Your task to perform on an android device: Go to privacy settings Image 0: 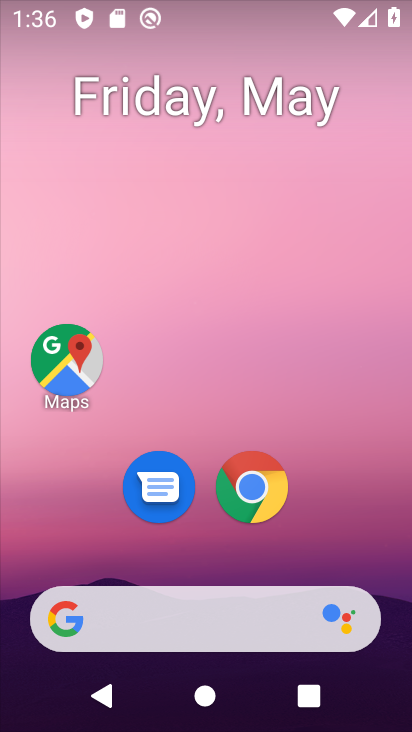
Step 0: drag from (311, 540) to (323, 6)
Your task to perform on an android device: Go to privacy settings Image 1: 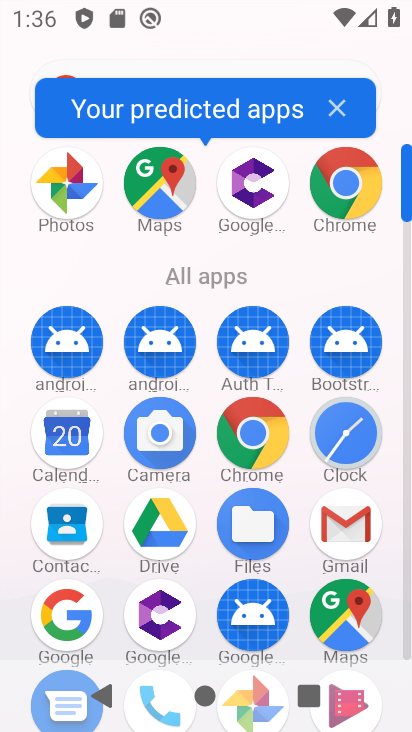
Step 1: click (406, 540)
Your task to perform on an android device: Go to privacy settings Image 2: 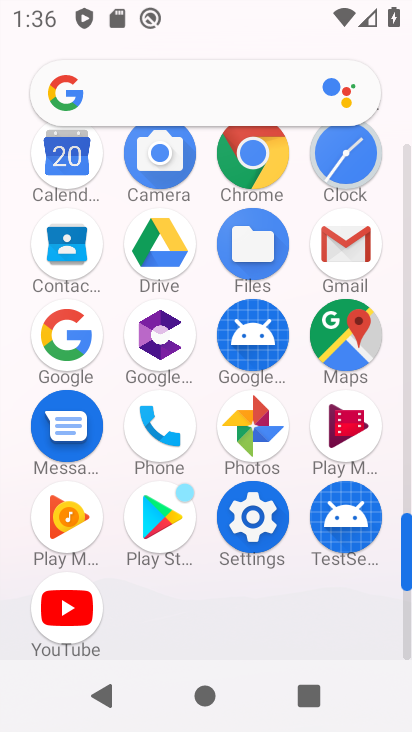
Step 2: click (239, 531)
Your task to perform on an android device: Go to privacy settings Image 3: 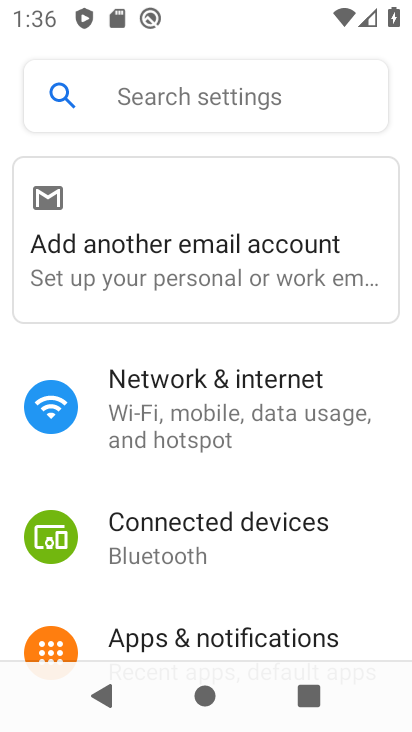
Step 3: drag from (255, 559) to (240, 79)
Your task to perform on an android device: Go to privacy settings Image 4: 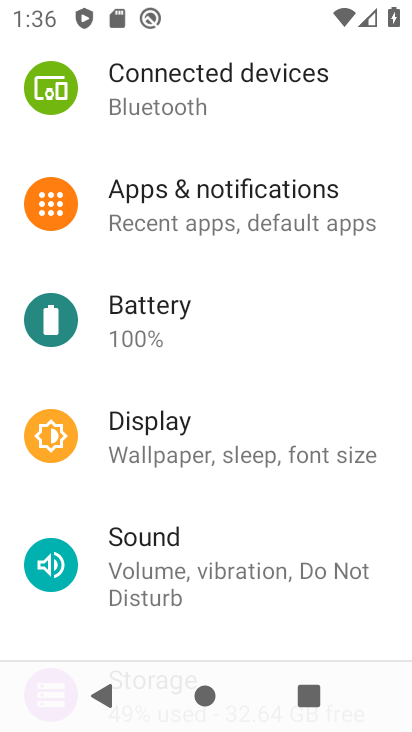
Step 4: drag from (233, 509) to (231, 263)
Your task to perform on an android device: Go to privacy settings Image 5: 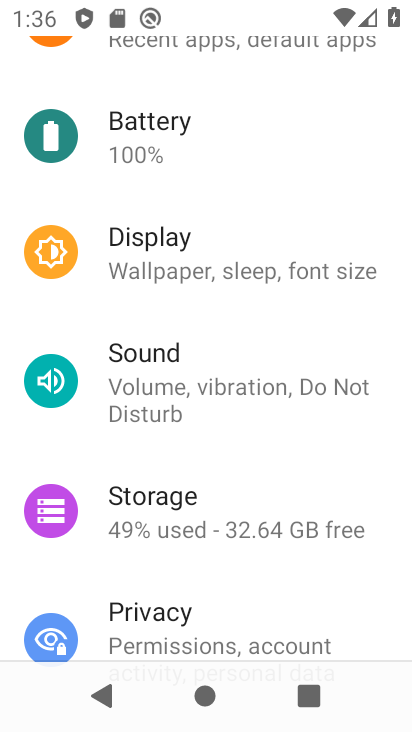
Step 5: drag from (204, 566) to (204, 235)
Your task to perform on an android device: Go to privacy settings Image 6: 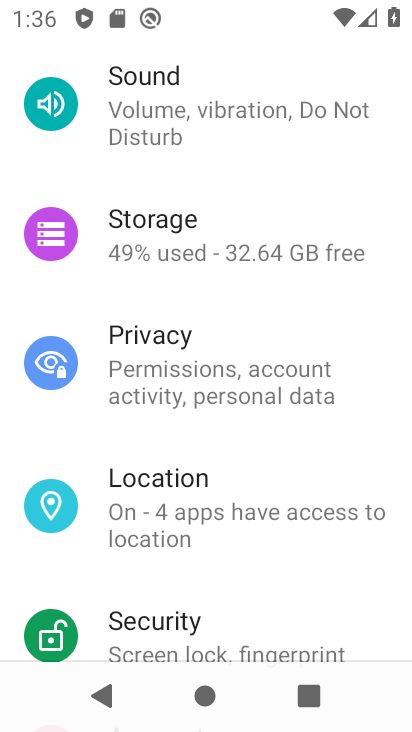
Step 6: click (173, 378)
Your task to perform on an android device: Go to privacy settings Image 7: 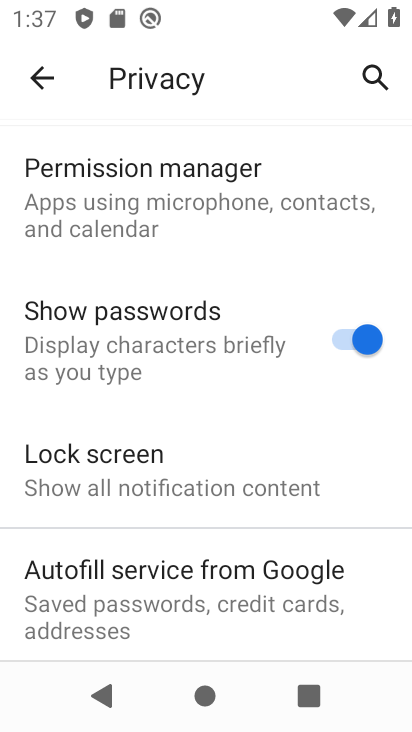
Step 7: task complete